Your task to perform on an android device: Open internet settings Image 0: 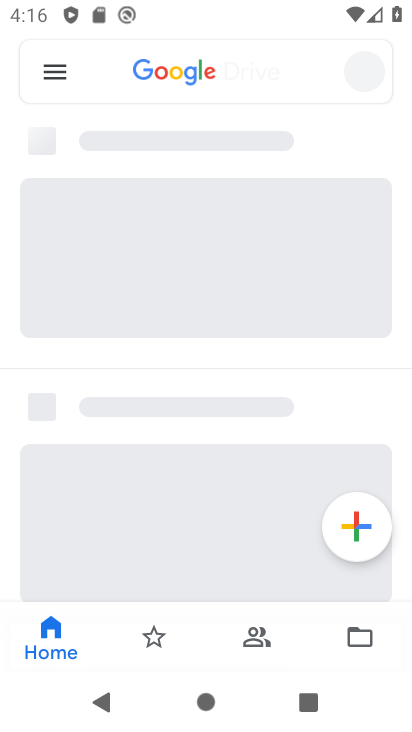
Step 0: press home button
Your task to perform on an android device: Open internet settings Image 1: 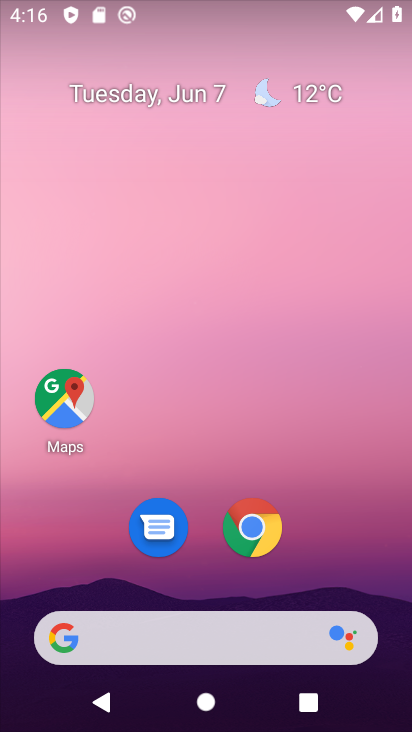
Step 1: drag from (343, 546) to (190, 54)
Your task to perform on an android device: Open internet settings Image 2: 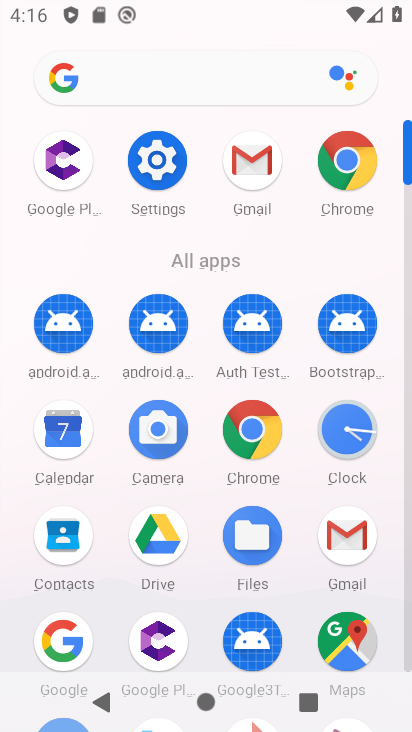
Step 2: click (158, 160)
Your task to perform on an android device: Open internet settings Image 3: 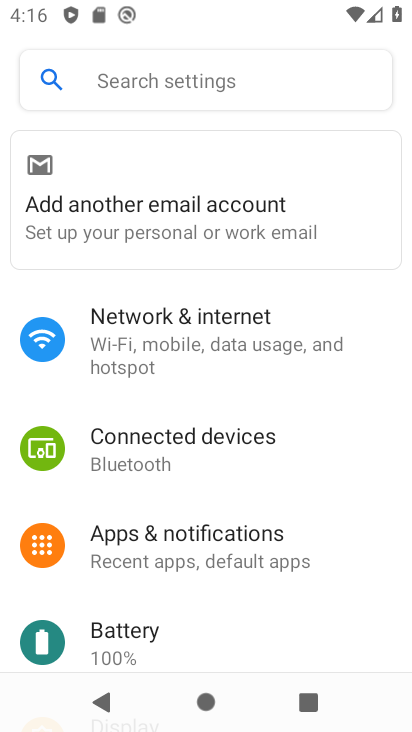
Step 3: click (221, 327)
Your task to perform on an android device: Open internet settings Image 4: 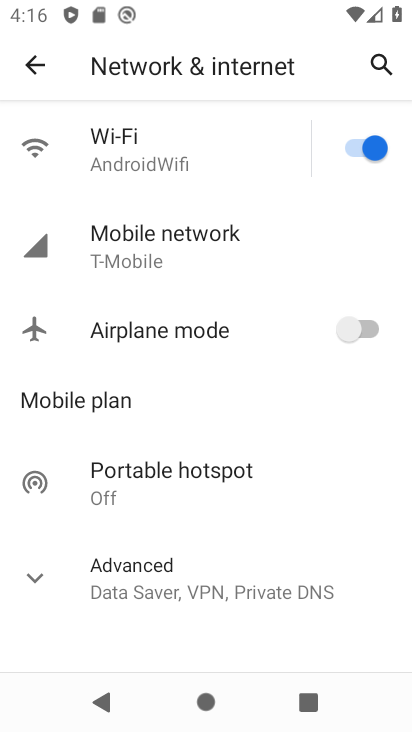
Step 4: click (167, 173)
Your task to perform on an android device: Open internet settings Image 5: 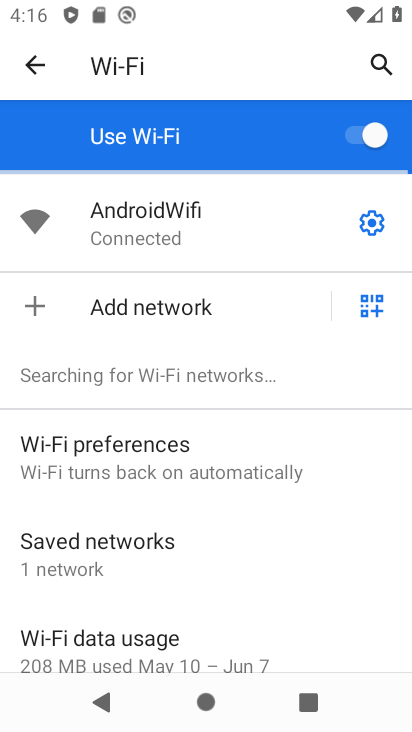
Step 5: task complete